Your task to perform on an android device: Open Android settings Image 0: 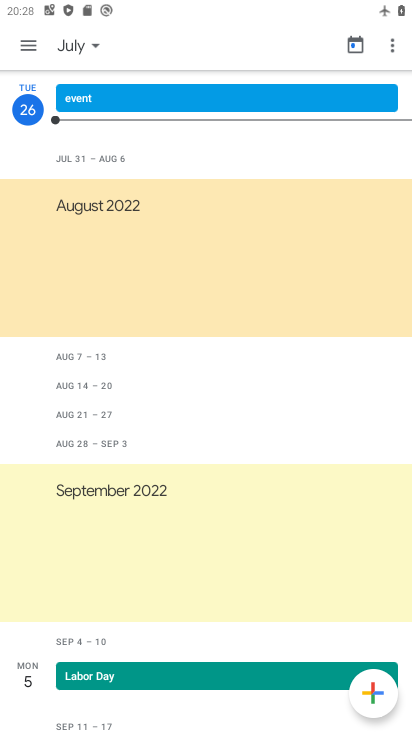
Step 0: press home button
Your task to perform on an android device: Open Android settings Image 1: 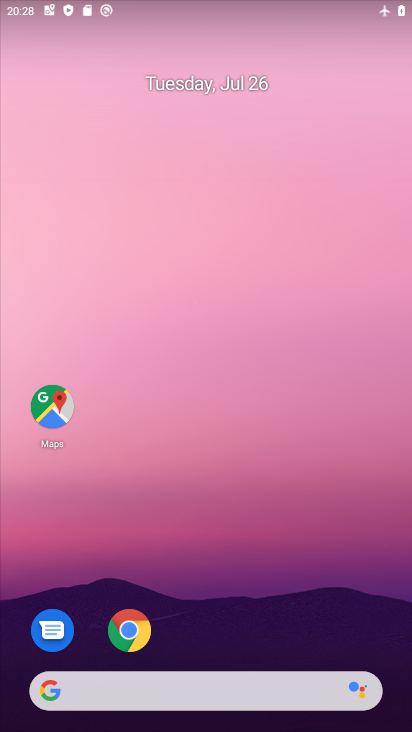
Step 1: drag from (248, 667) to (254, 11)
Your task to perform on an android device: Open Android settings Image 2: 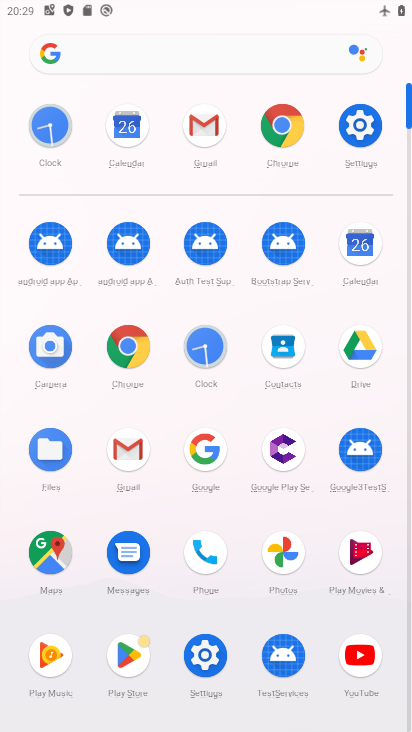
Step 2: click (368, 120)
Your task to perform on an android device: Open Android settings Image 3: 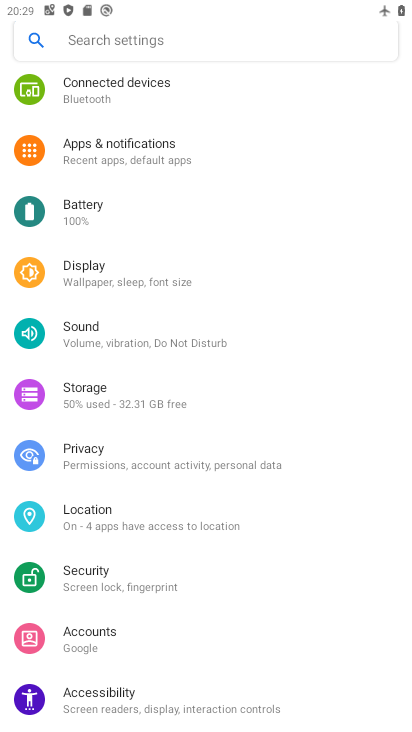
Step 3: task complete